Your task to perform on an android device: Show me recent news Image 0: 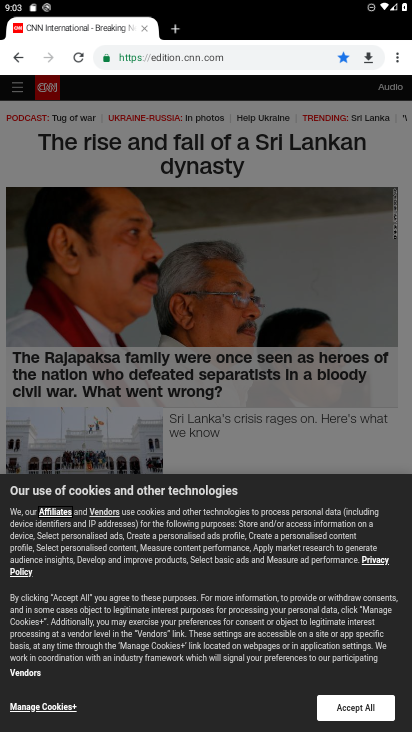
Step 0: press home button
Your task to perform on an android device: Show me recent news Image 1: 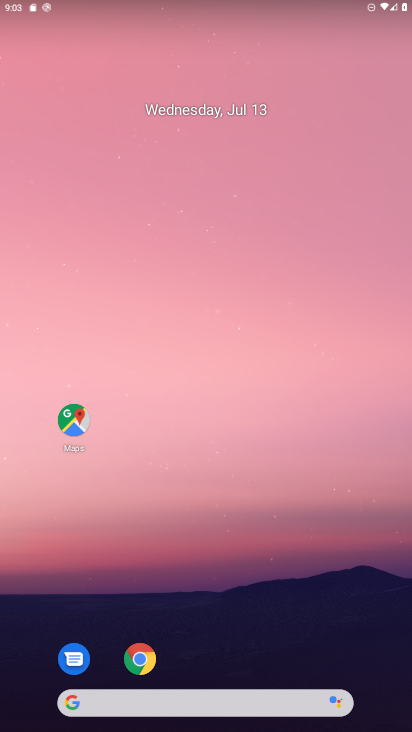
Step 1: drag from (210, 660) to (298, 63)
Your task to perform on an android device: Show me recent news Image 2: 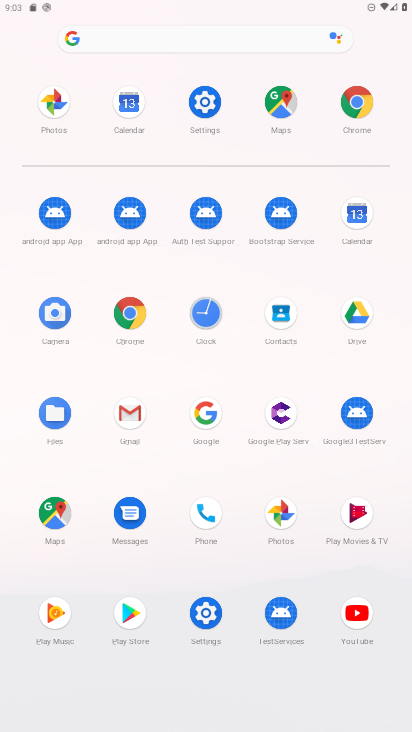
Step 2: click (205, 414)
Your task to perform on an android device: Show me recent news Image 3: 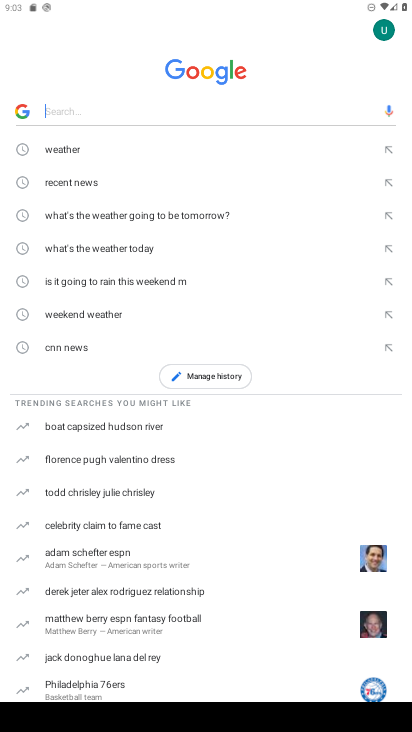
Step 3: click (87, 183)
Your task to perform on an android device: Show me recent news Image 4: 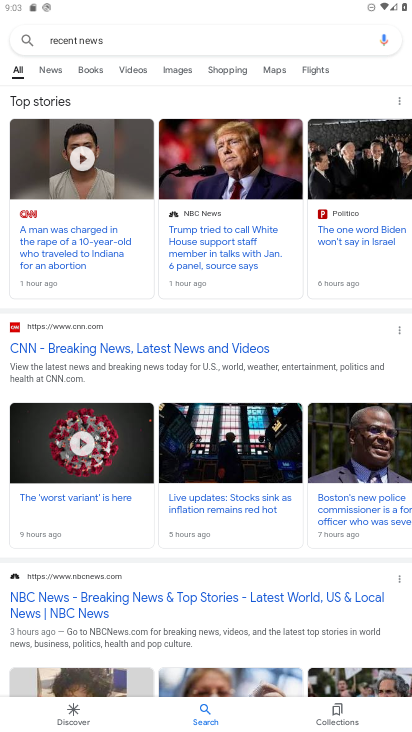
Step 4: task complete